Your task to perform on an android device: Open location settings Image 0: 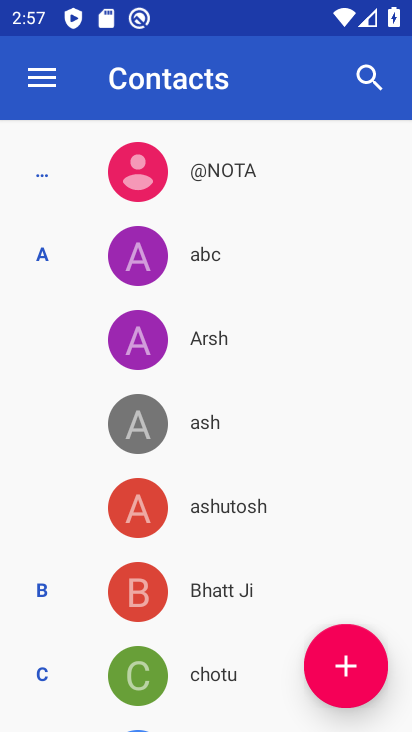
Step 0: press home button
Your task to perform on an android device: Open location settings Image 1: 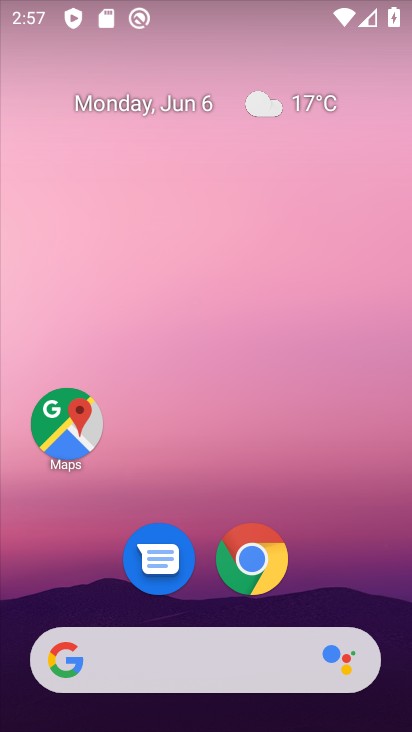
Step 1: drag from (329, 560) to (216, 183)
Your task to perform on an android device: Open location settings Image 2: 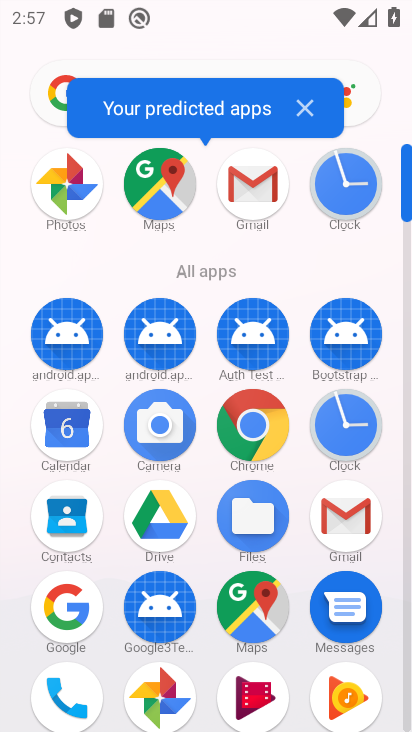
Step 2: click (408, 649)
Your task to perform on an android device: Open location settings Image 3: 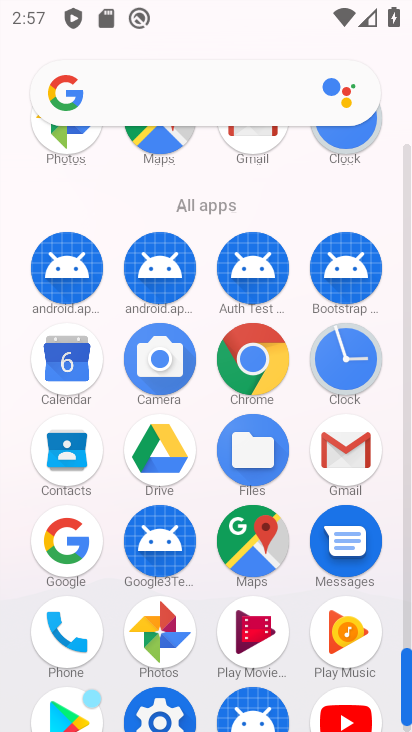
Step 3: click (142, 719)
Your task to perform on an android device: Open location settings Image 4: 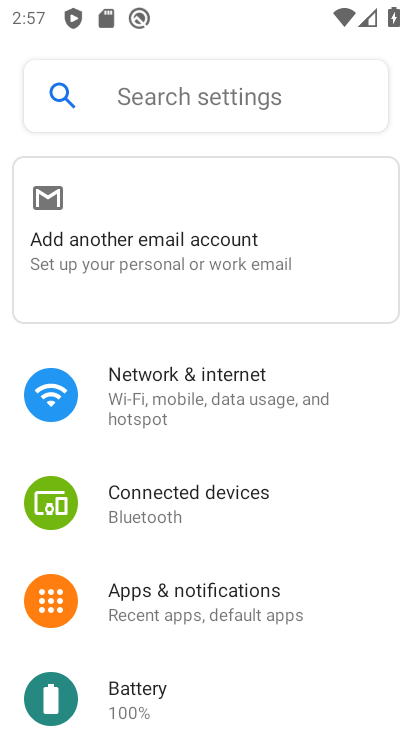
Step 4: drag from (242, 649) to (171, 162)
Your task to perform on an android device: Open location settings Image 5: 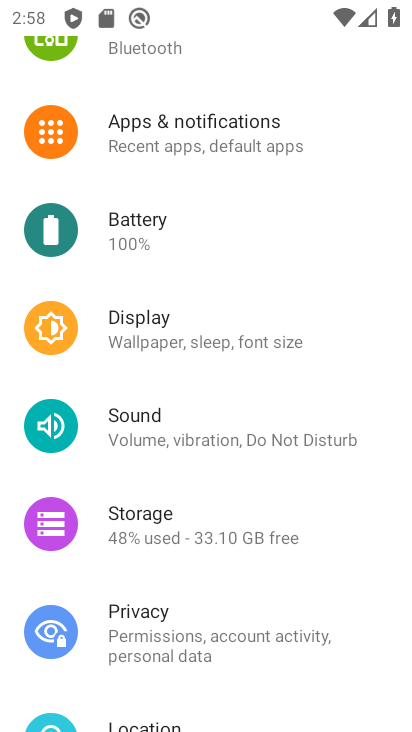
Step 5: click (192, 728)
Your task to perform on an android device: Open location settings Image 6: 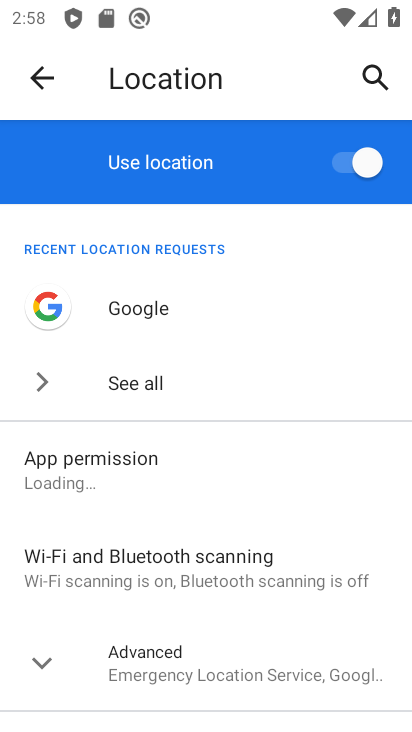
Step 6: task complete